Your task to perform on an android device: Go to calendar. Show me events next week Image 0: 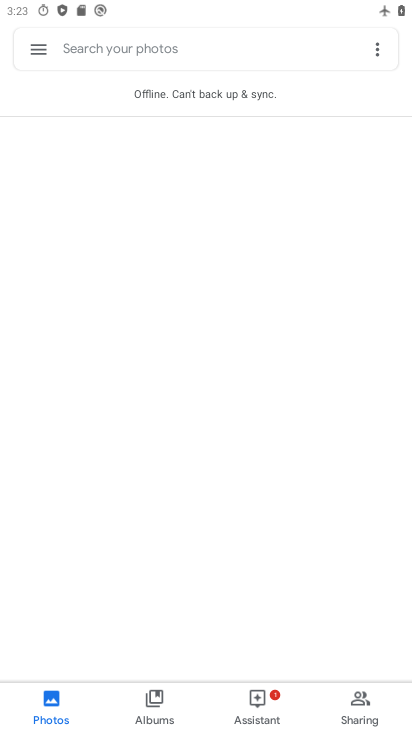
Step 0: press back button
Your task to perform on an android device: Go to calendar. Show me events next week Image 1: 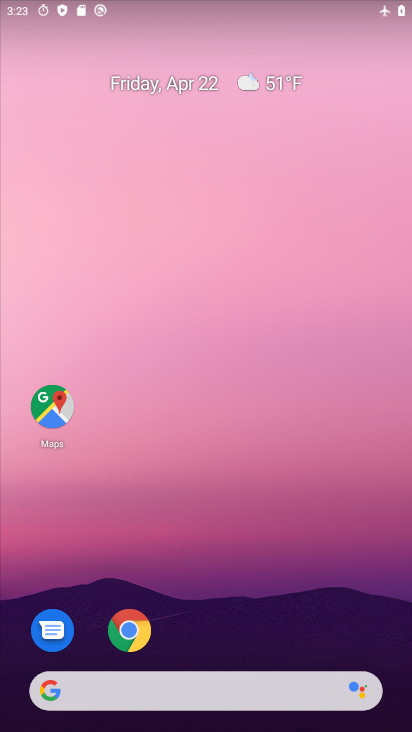
Step 1: drag from (228, 553) to (195, 18)
Your task to perform on an android device: Go to calendar. Show me events next week Image 2: 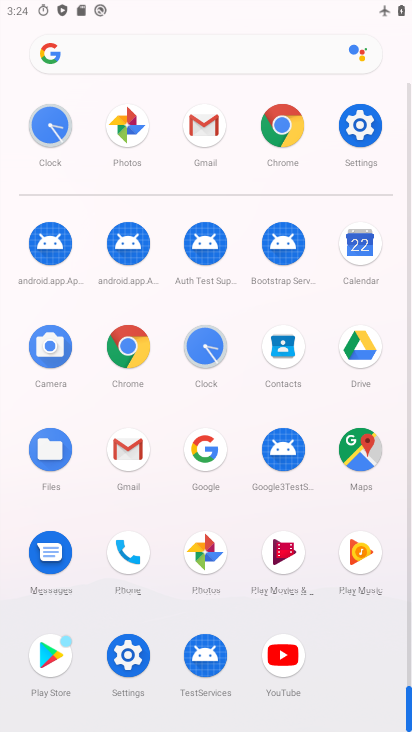
Step 2: drag from (8, 537) to (17, 267)
Your task to perform on an android device: Go to calendar. Show me events next week Image 3: 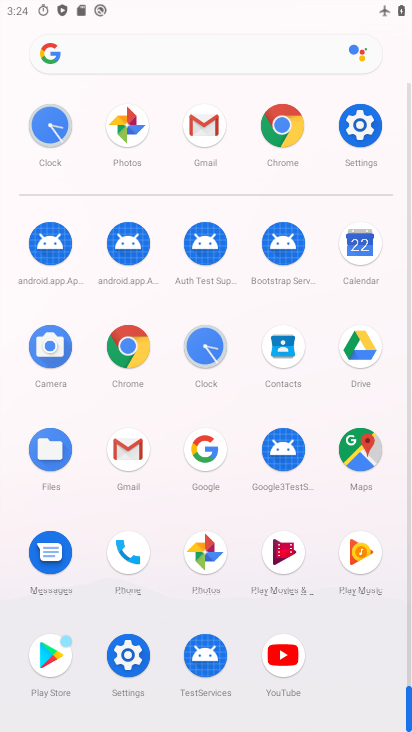
Step 3: click (362, 241)
Your task to perform on an android device: Go to calendar. Show me events next week Image 4: 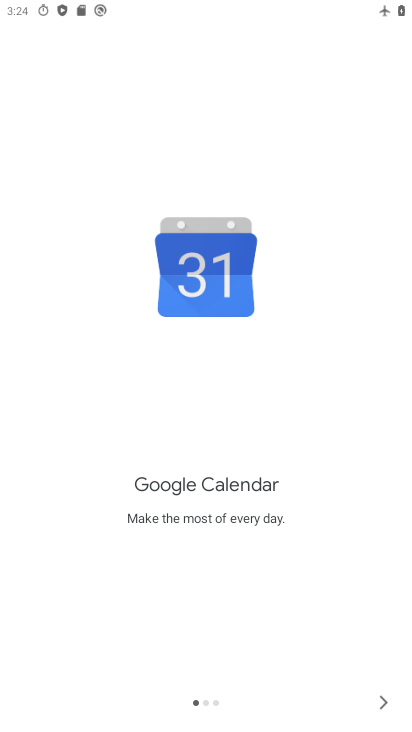
Step 4: click (383, 699)
Your task to perform on an android device: Go to calendar. Show me events next week Image 5: 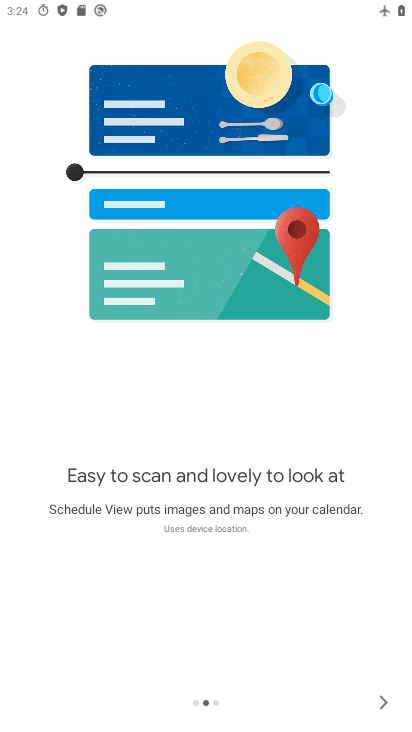
Step 5: click (383, 699)
Your task to perform on an android device: Go to calendar. Show me events next week Image 6: 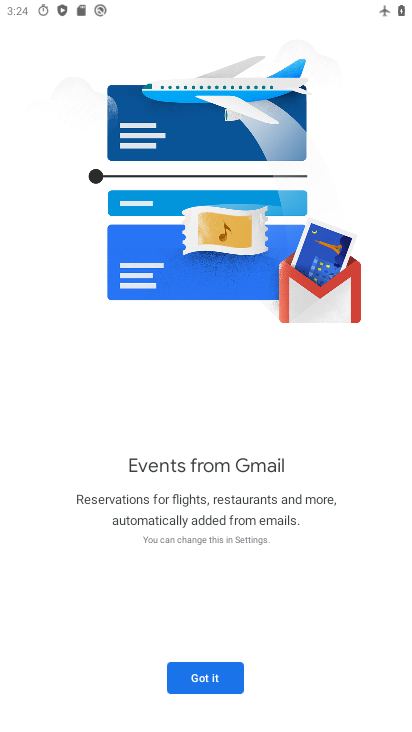
Step 6: click (191, 682)
Your task to perform on an android device: Go to calendar. Show me events next week Image 7: 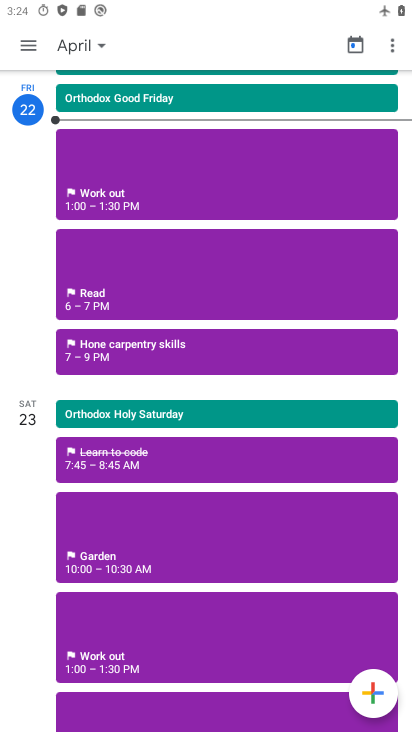
Step 7: click (76, 55)
Your task to perform on an android device: Go to calendar. Show me events next week Image 8: 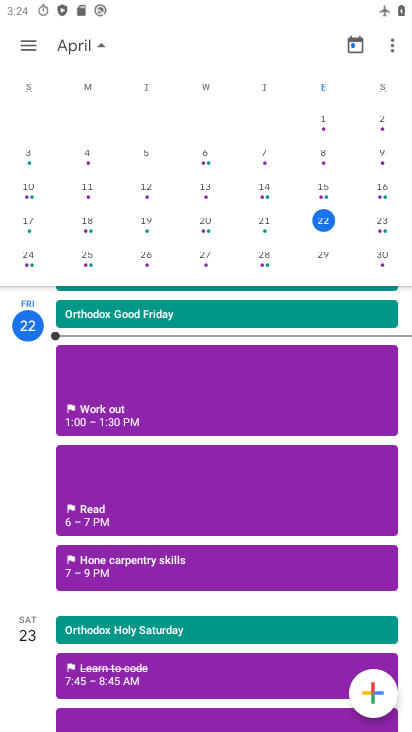
Step 8: click (38, 41)
Your task to perform on an android device: Go to calendar. Show me events next week Image 9: 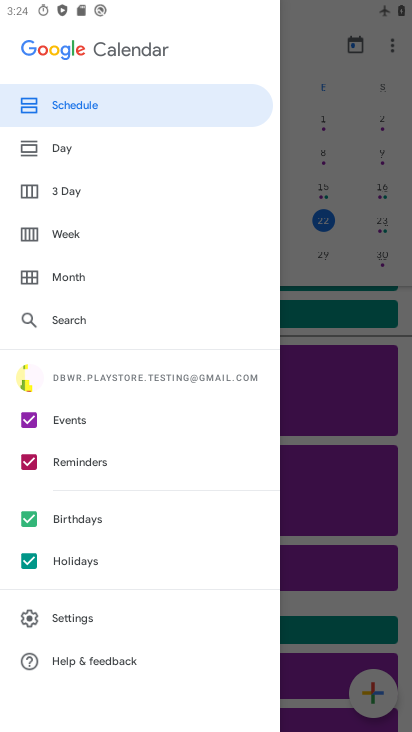
Step 9: click (85, 226)
Your task to perform on an android device: Go to calendar. Show me events next week Image 10: 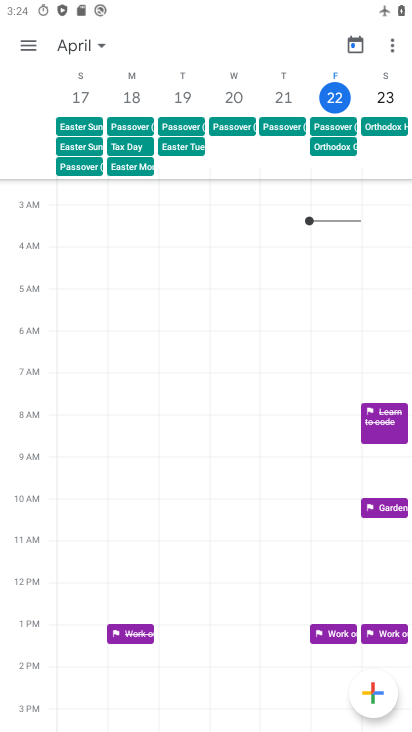
Step 10: task complete